Your task to perform on an android device: Go to privacy settings Image 0: 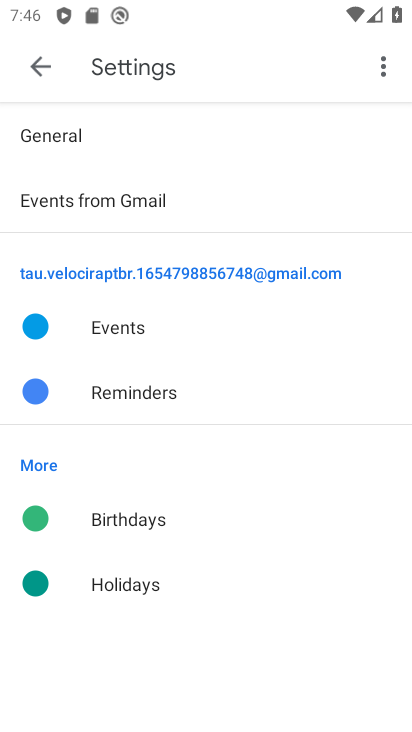
Step 0: press home button
Your task to perform on an android device: Go to privacy settings Image 1: 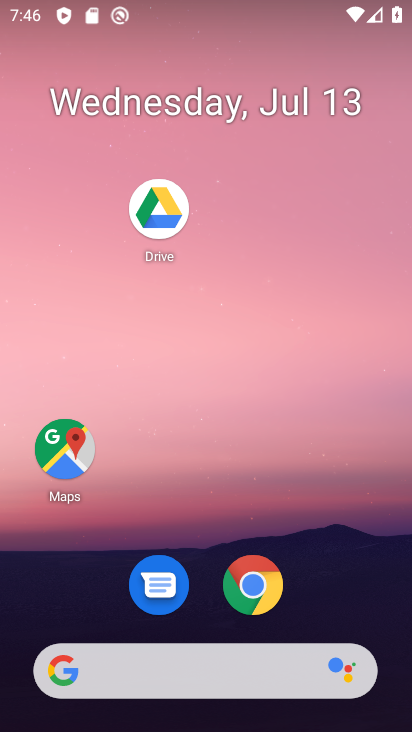
Step 1: drag from (222, 675) to (358, 60)
Your task to perform on an android device: Go to privacy settings Image 2: 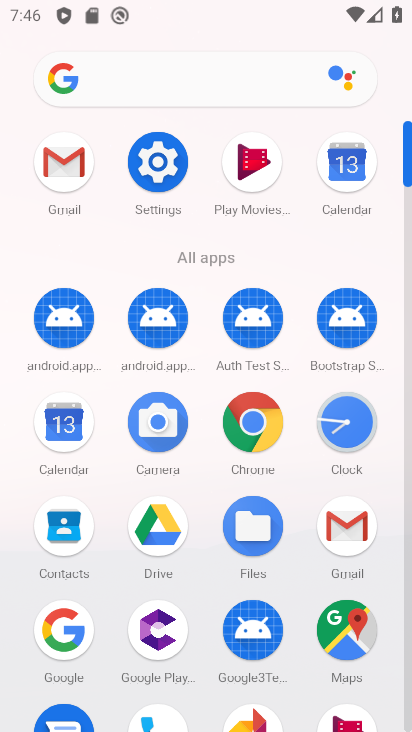
Step 2: click (173, 167)
Your task to perform on an android device: Go to privacy settings Image 3: 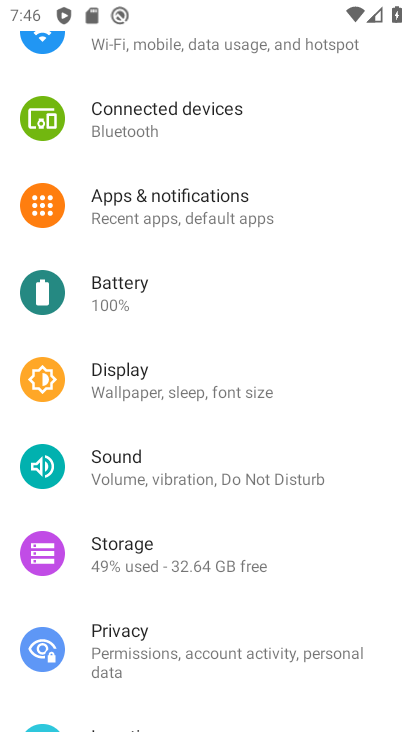
Step 3: click (118, 632)
Your task to perform on an android device: Go to privacy settings Image 4: 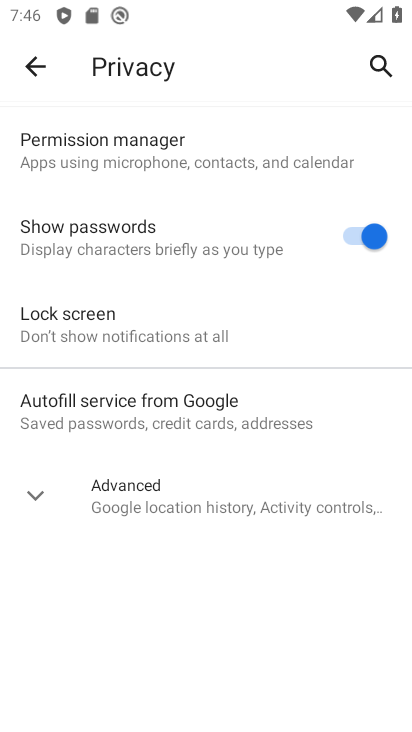
Step 4: task complete